Your task to perform on an android device: Open Google Image 0: 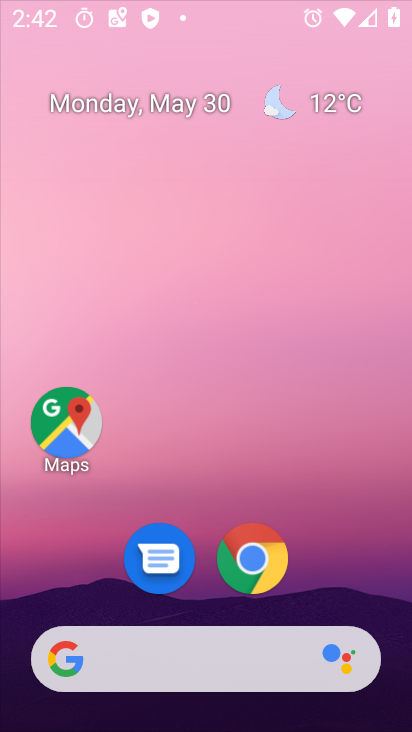
Step 0: drag from (235, 508) to (292, 109)
Your task to perform on an android device: Open Google Image 1: 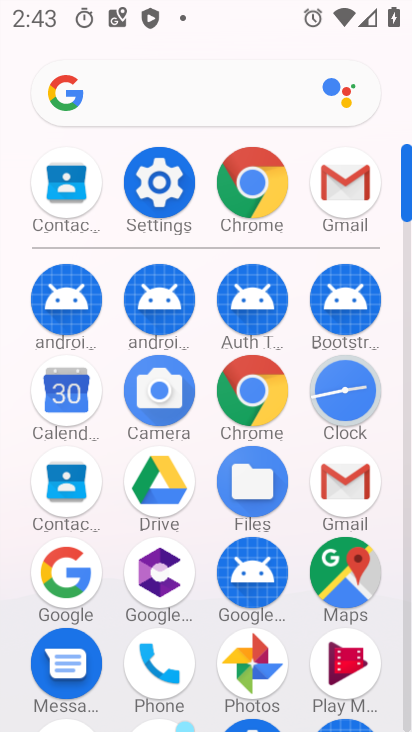
Step 1: click (63, 575)
Your task to perform on an android device: Open Google Image 2: 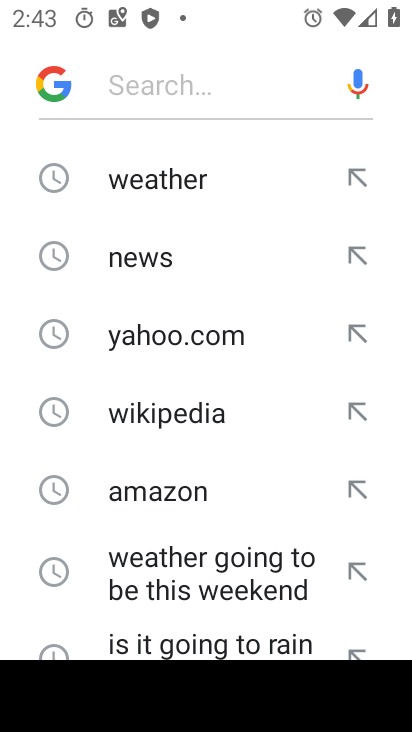
Step 2: task complete